Your task to perform on an android device: Go to internet settings Image 0: 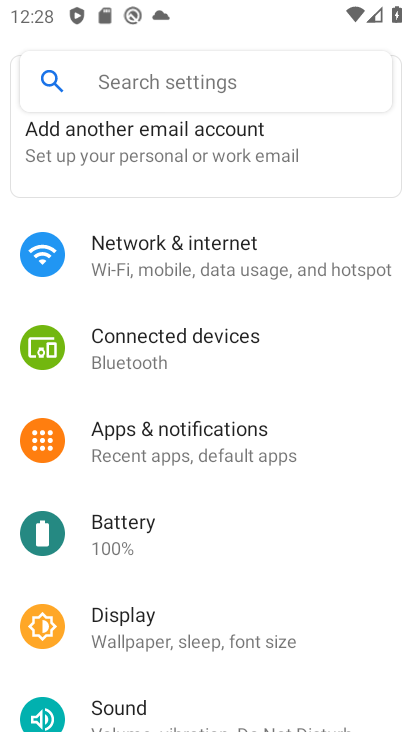
Step 0: click (219, 262)
Your task to perform on an android device: Go to internet settings Image 1: 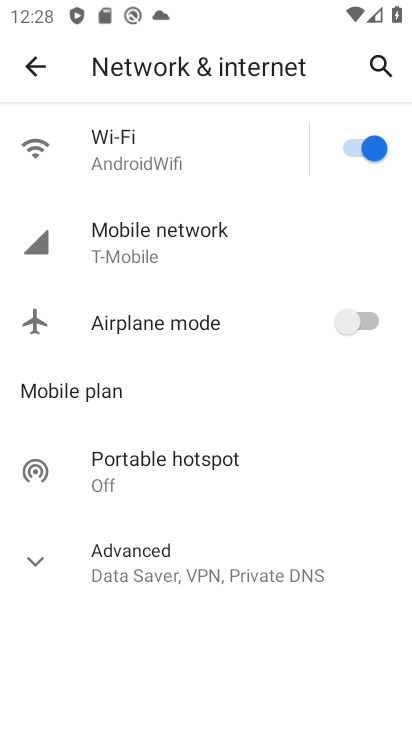
Step 1: task complete